Your task to perform on an android device: What's the weather today? Image 0: 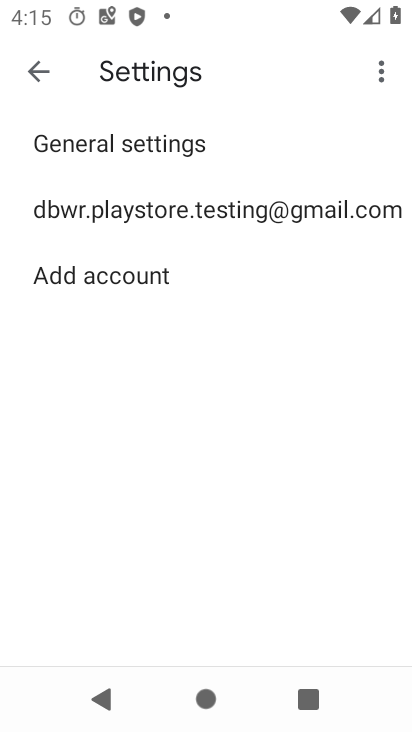
Step 0: press back button
Your task to perform on an android device: What's the weather today? Image 1: 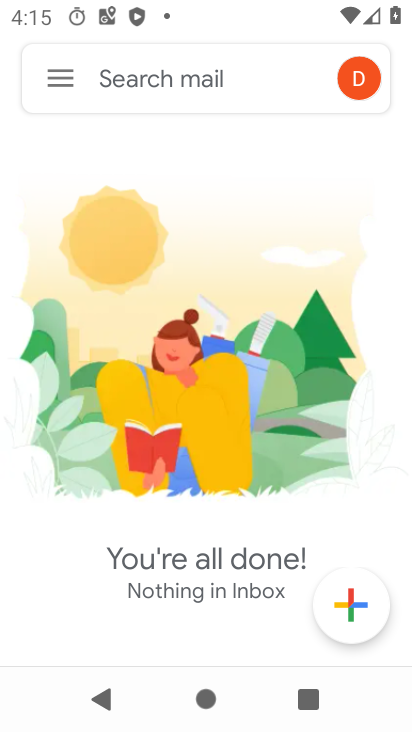
Step 1: press back button
Your task to perform on an android device: What's the weather today? Image 2: 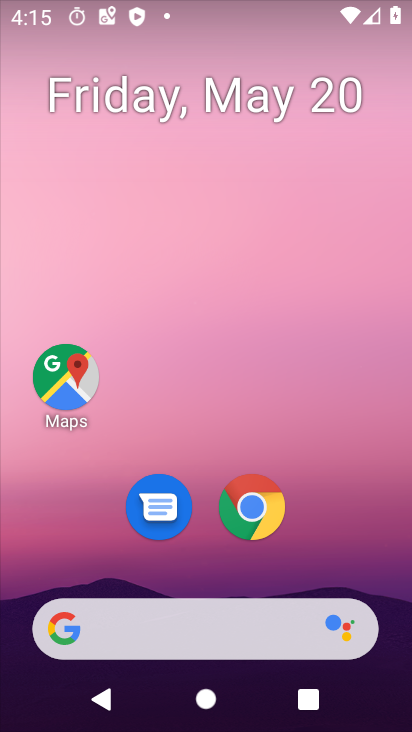
Step 2: drag from (309, 551) to (209, 191)
Your task to perform on an android device: What's the weather today? Image 3: 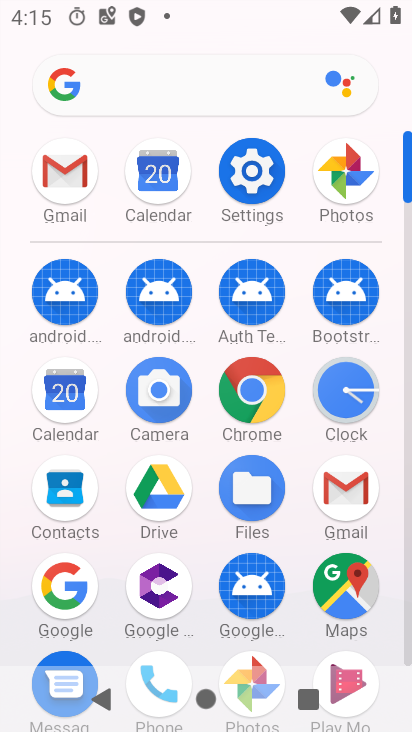
Step 3: click (57, 588)
Your task to perform on an android device: What's the weather today? Image 4: 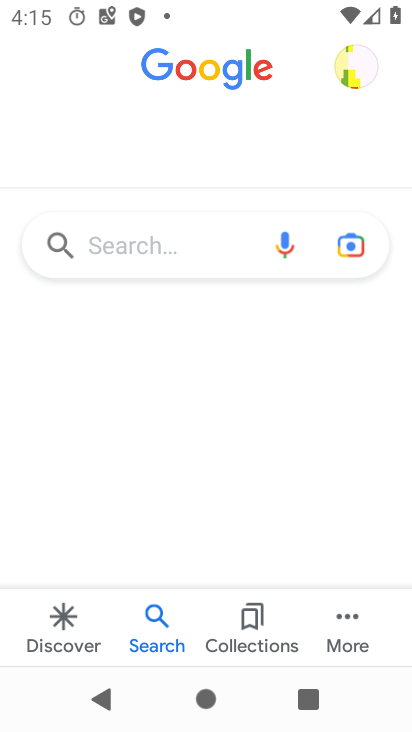
Step 4: click (169, 252)
Your task to perform on an android device: What's the weather today? Image 5: 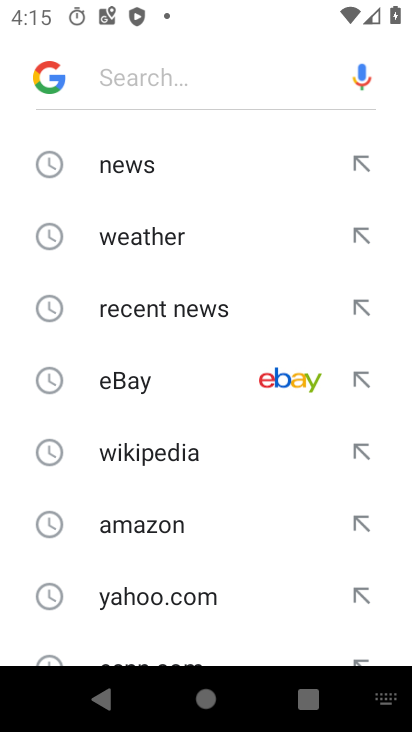
Step 5: click (159, 235)
Your task to perform on an android device: What's the weather today? Image 6: 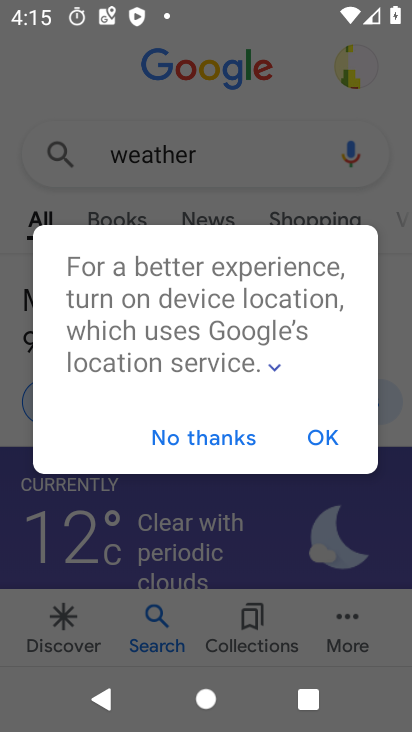
Step 6: click (238, 435)
Your task to perform on an android device: What's the weather today? Image 7: 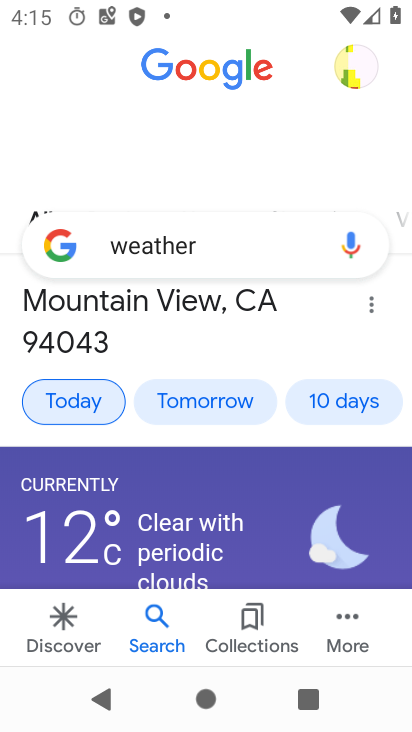
Step 7: task complete